Your task to perform on an android device: Open the calendar app, open the side menu, and click the "Day" option Image 0: 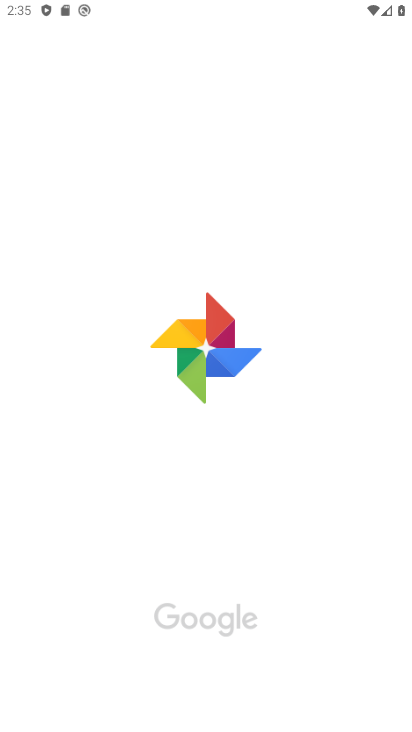
Step 0: drag from (194, 546) to (411, 367)
Your task to perform on an android device: Open the calendar app, open the side menu, and click the "Day" option Image 1: 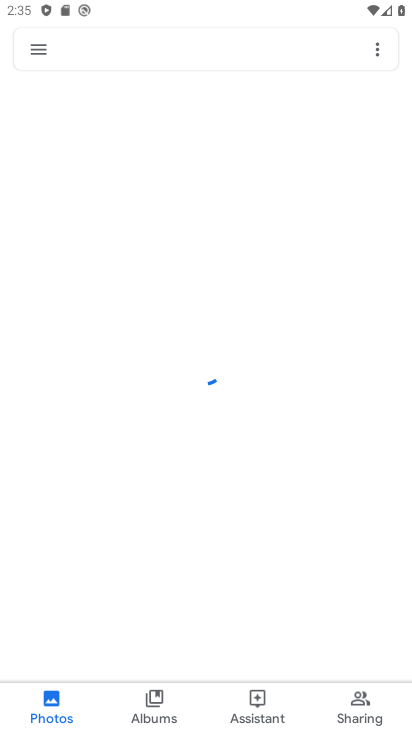
Step 1: press home button
Your task to perform on an android device: Open the calendar app, open the side menu, and click the "Day" option Image 2: 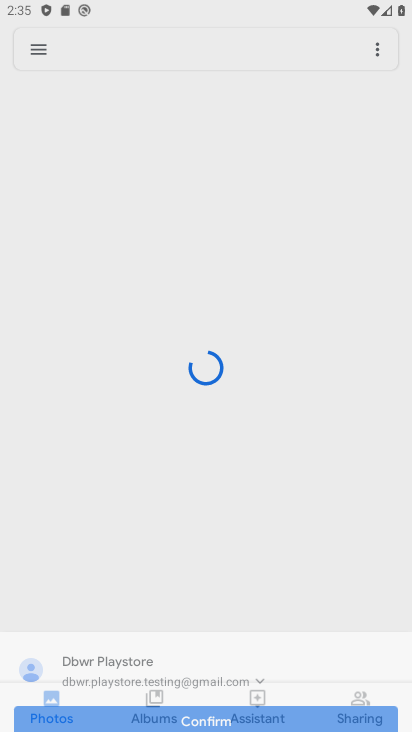
Step 2: drag from (411, 367) to (388, 283)
Your task to perform on an android device: Open the calendar app, open the side menu, and click the "Day" option Image 3: 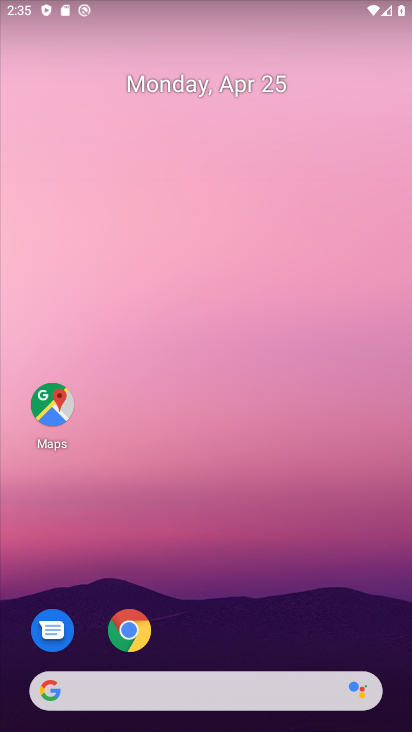
Step 3: drag from (120, 390) to (54, 101)
Your task to perform on an android device: Open the calendar app, open the side menu, and click the "Day" option Image 4: 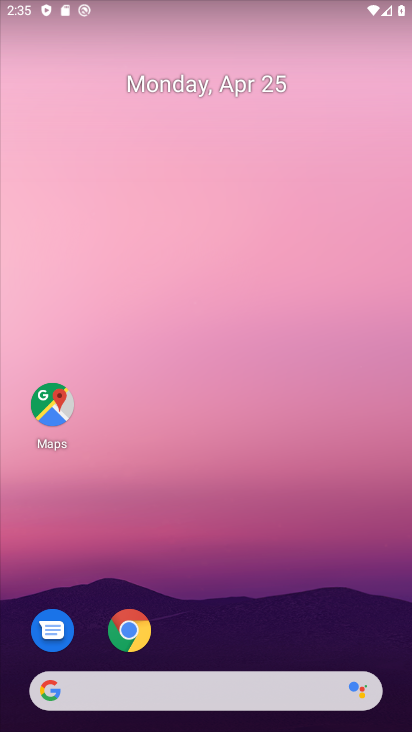
Step 4: drag from (301, 589) to (330, 55)
Your task to perform on an android device: Open the calendar app, open the side menu, and click the "Day" option Image 5: 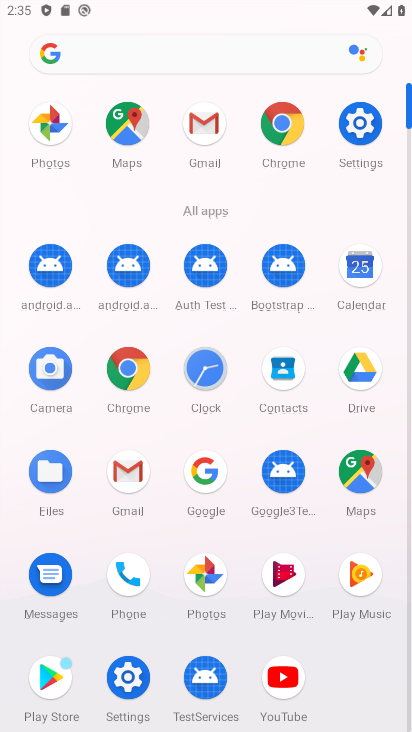
Step 5: click (361, 266)
Your task to perform on an android device: Open the calendar app, open the side menu, and click the "Day" option Image 6: 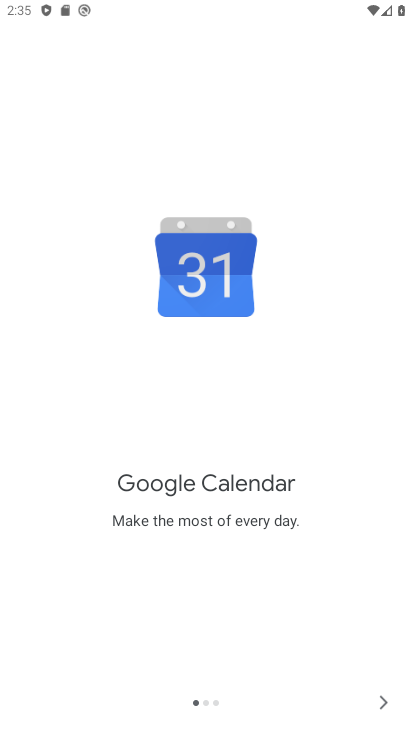
Step 6: click (390, 706)
Your task to perform on an android device: Open the calendar app, open the side menu, and click the "Day" option Image 7: 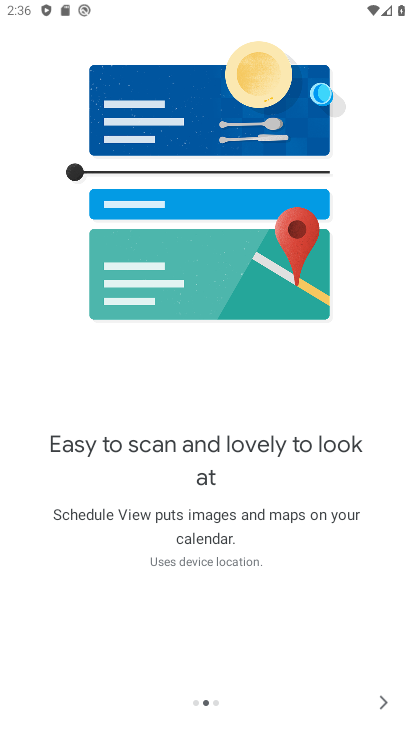
Step 7: click (388, 702)
Your task to perform on an android device: Open the calendar app, open the side menu, and click the "Day" option Image 8: 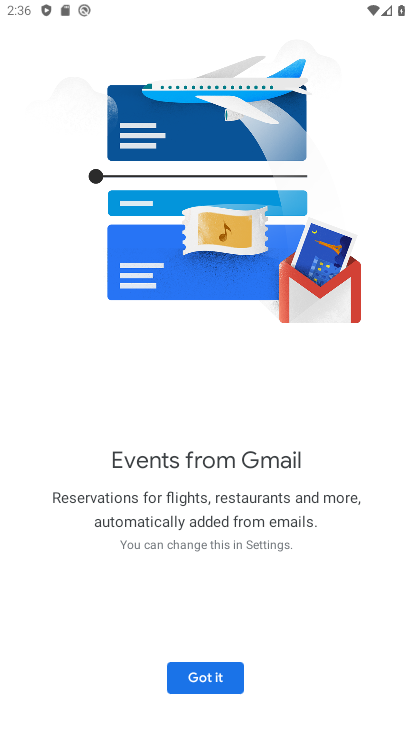
Step 8: click (225, 680)
Your task to perform on an android device: Open the calendar app, open the side menu, and click the "Day" option Image 9: 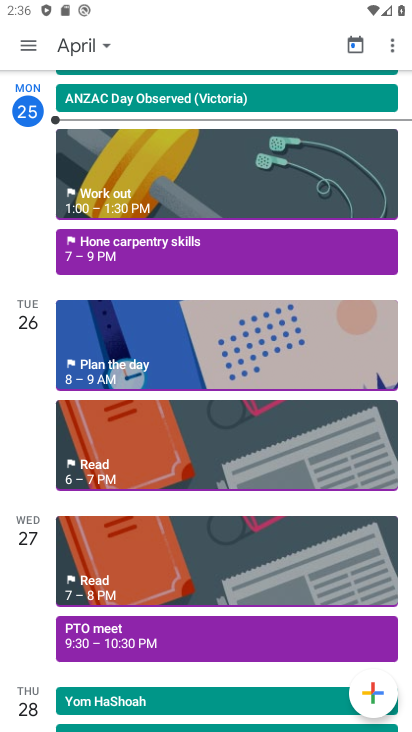
Step 9: click (26, 46)
Your task to perform on an android device: Open the calendar app, open the side menu, and click the "Day" option Image 10: 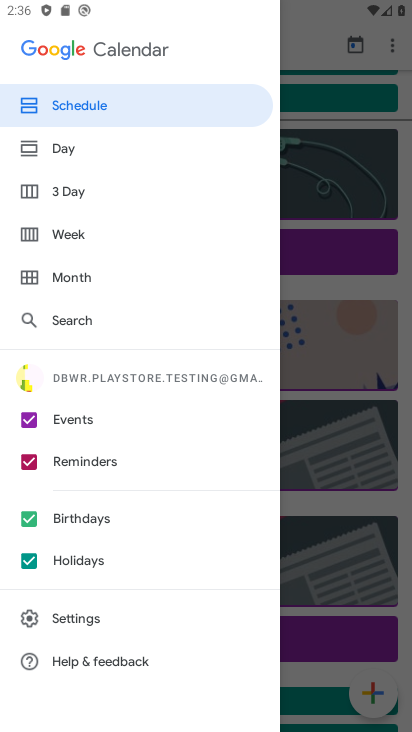
Step 10: click (54, 145)
Your task to perform on an android device: Open the calendar app, open the side menu, and click the "Day" option Image 11: 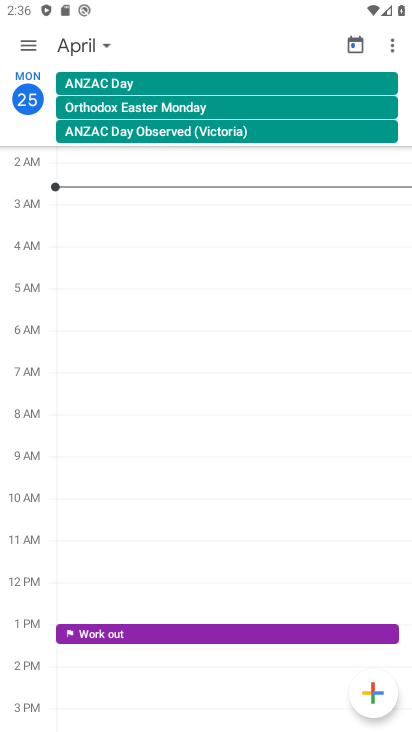
Step 11: task complete